Your task to perform on an android device: Open CNN.com Image 0: 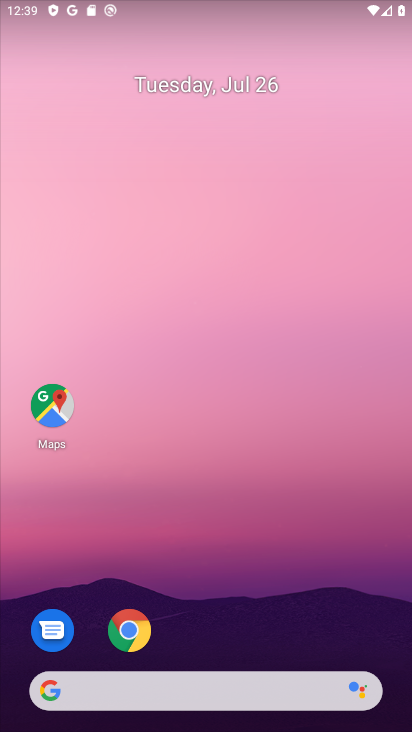
Step 0: drag from (151, 622) to (306, 71)
Your task to perform on an android device: Open CNN.com Image 1: 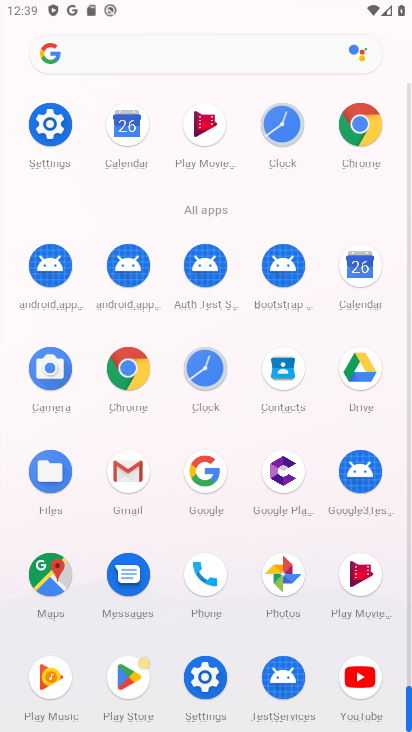
Step 1: click (347, 131)
Your task to perform on an android device: Open CNN.com Image 2: 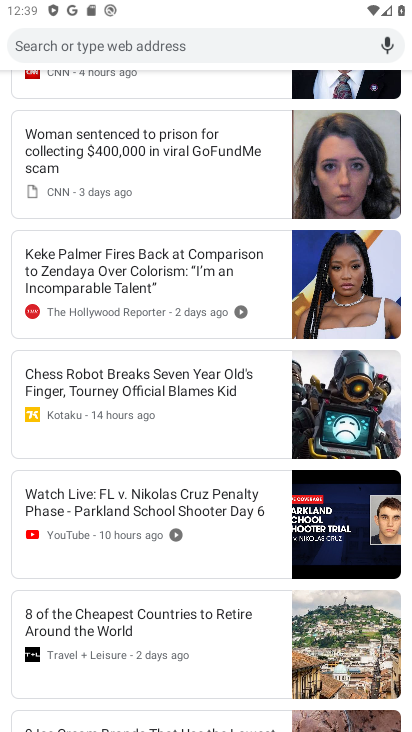
Step 2: drag from (180, 279) to (146, 637)
Your task to perform on an android device: Open CNN.com Image 3: 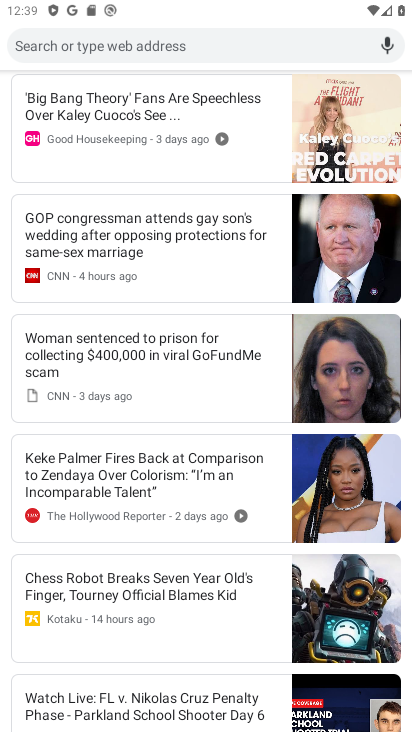
Step 3: drag from (215, 249) to (222, 646)
Your task to perform on an android device: Open CNN.com Image 4: 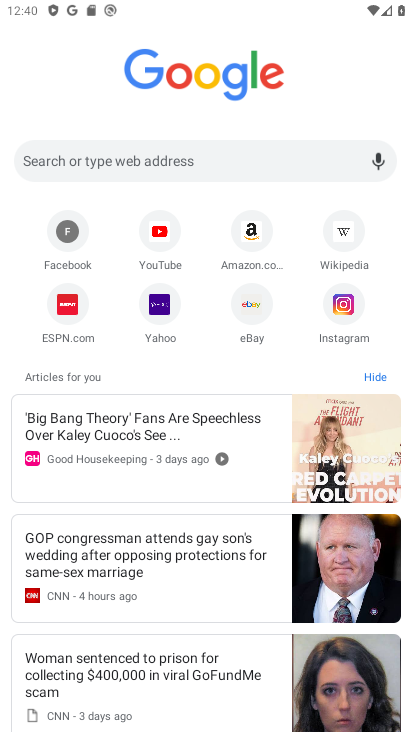
Step 4: click (216, 174)
Your task to perform on an android device: Open CNN.com Image 5: 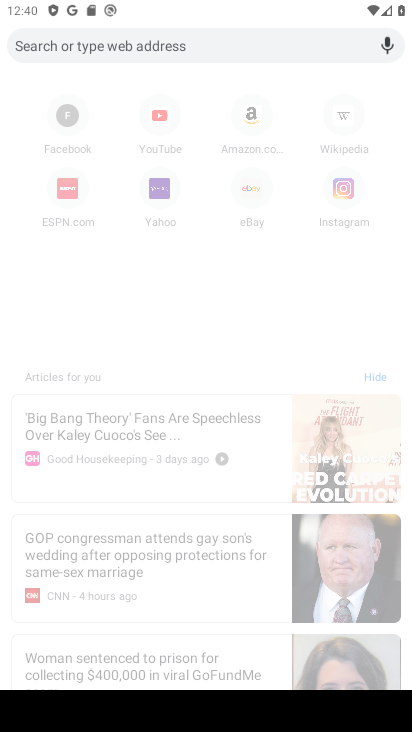
Step 5: type " CNN.com"
Your task to perform on an android device: Open CNN.com Image 6: 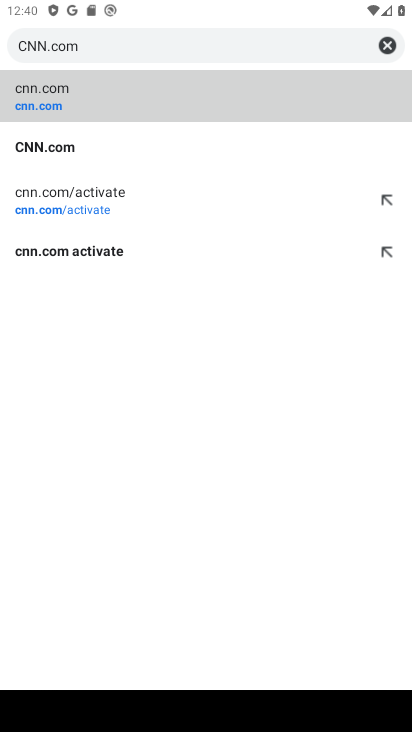
Step 6: click (78, 154)
Your task to perform on an android device: Open CNN.com Image 7: 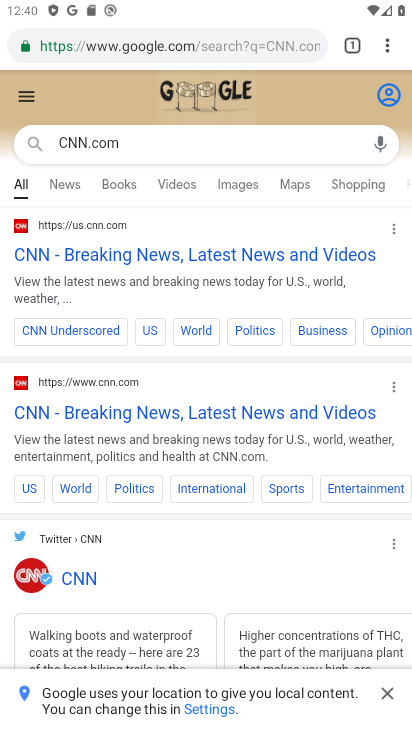
Step 7: task complete